Your task to perform on an android device: turn off priority inbox in the gmail app Image 0: 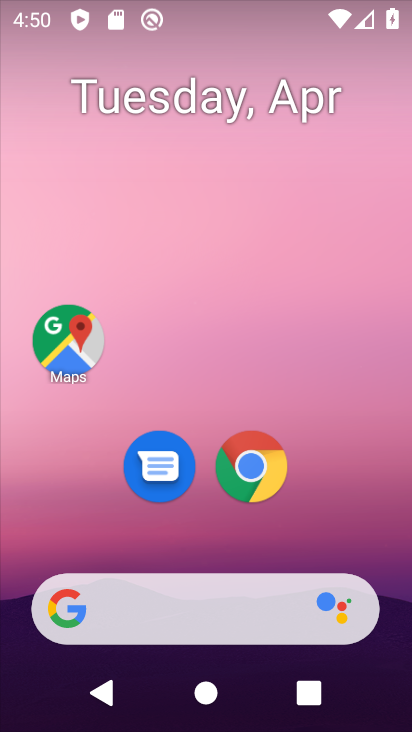
Step 0: drag from (207, 428) to (289, 15)
Your task to perform on an android device: turn off priority inbox in the gmail app Image 1: 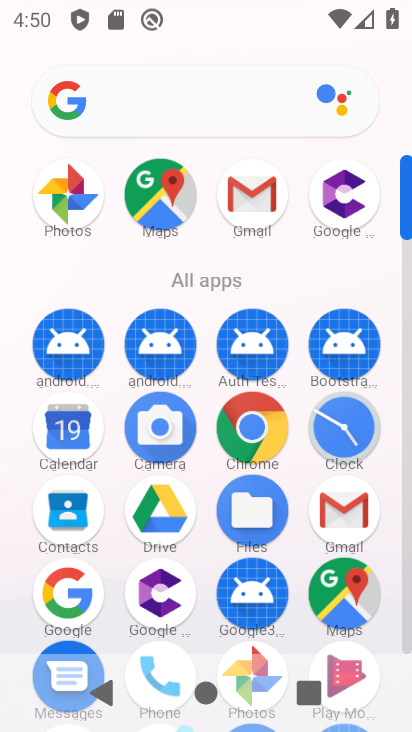
Step 1: click (363, 505)
Your task to perform on an android device: turn off priority inbox in the gmail app Image 2: 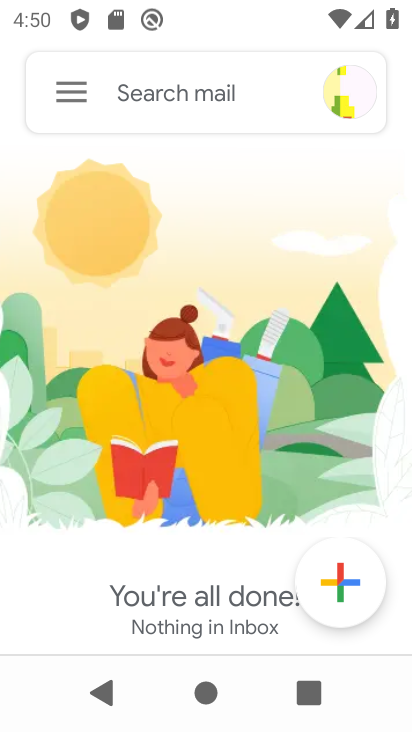
Step 2: click (78, 91)
Your task to perform on an android device: turn off priority inbox in the gmail app Image 3: 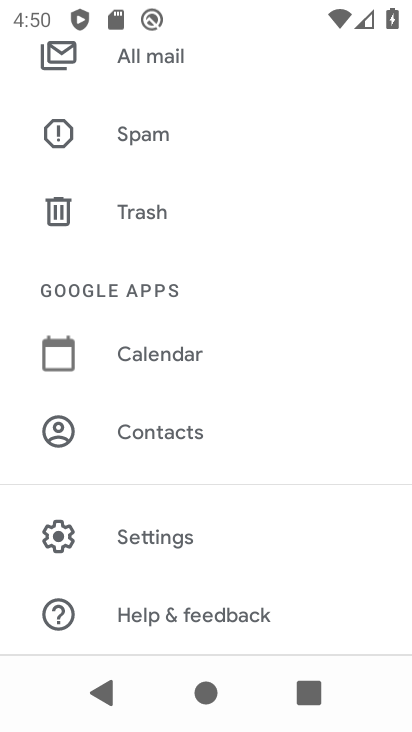
Step 3: click (186, 557)
Your task to perform on an android device: turn off priority inbox in the gmail app Image 4: 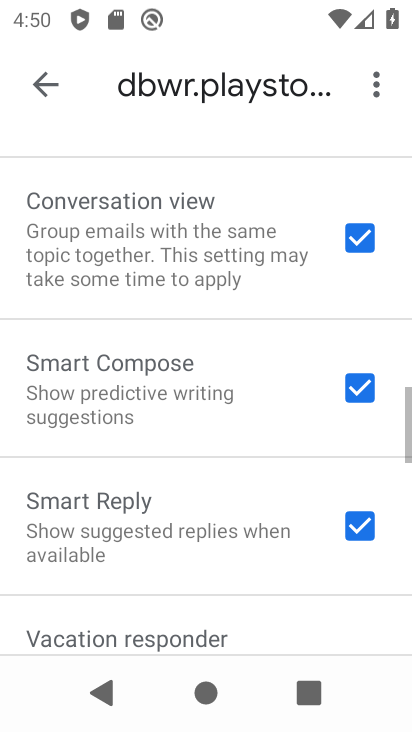
Step 4: drag from (186, 557) to (257, 68)
Your task to perform on an android device: turn off priority inbox in the gmail app Image 5: 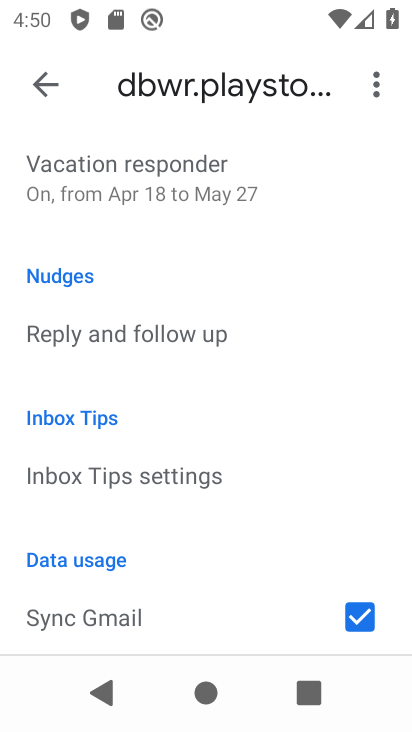
Step 5: drag from (87, 518) to (159, 86)
Your task to perform on an android device: turn off priority inbox in the gmail app Image 6: 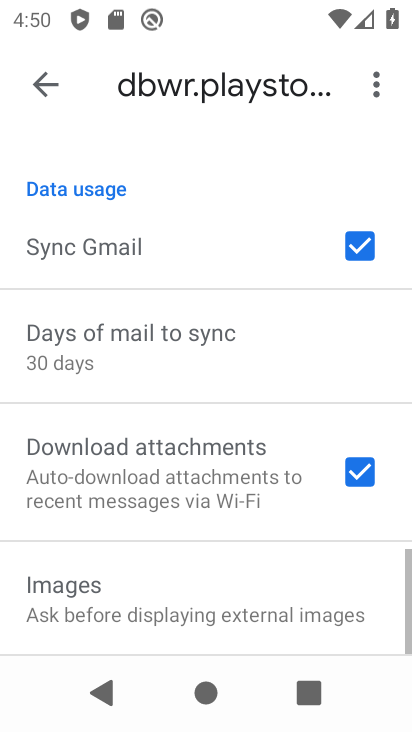
Step 6: drag from (130, 536) to (184, 155)
Your task to perform on an android device: turn off priority inbox in the gmail app Image 7: 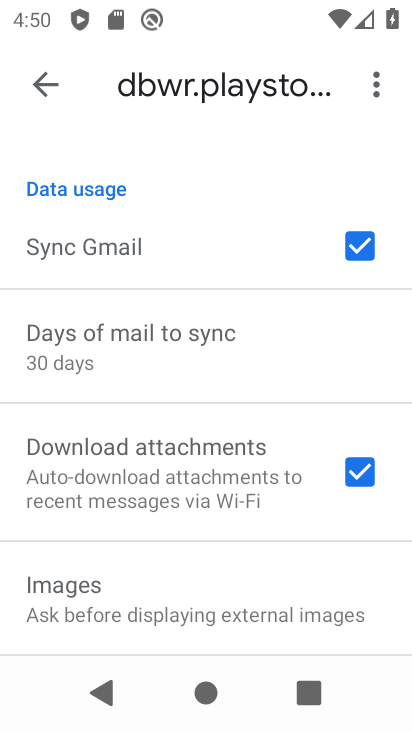
Step 7: drag from (218, 234) to (275, 678)
Your task to perform on an android device: turn off priority inbox in the gmail app Image 8: 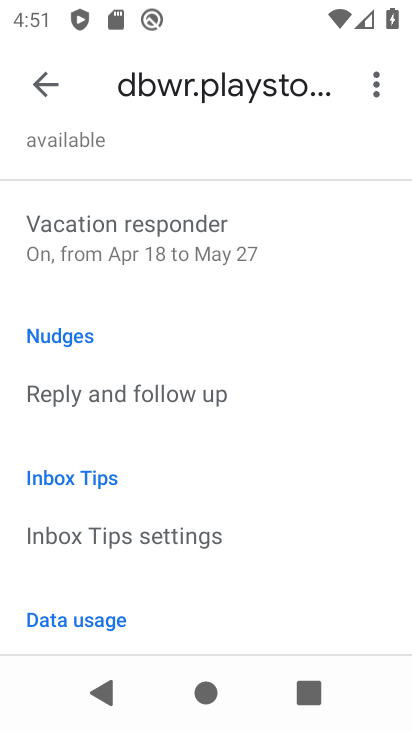
Step 8: drag from (114, 617) to (212, 156)
Your task to perform on an android device: turn off priority inbox in the gmail app Image 9: 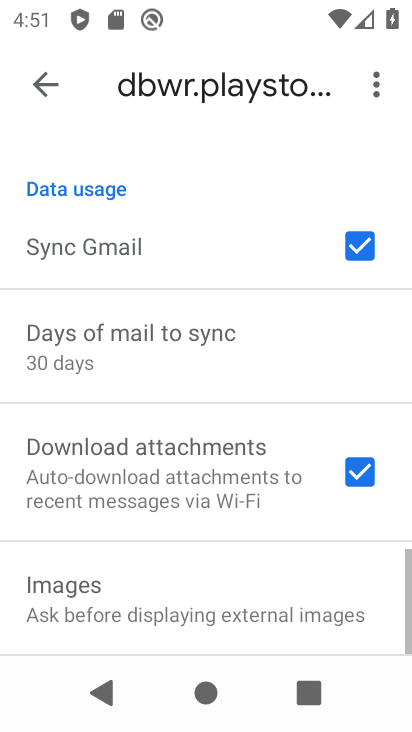
Step 9: drag from (86, 575) to (132, 184)
Your task to perform on an android device: turn off priority inbox in the gmail app Image 10: 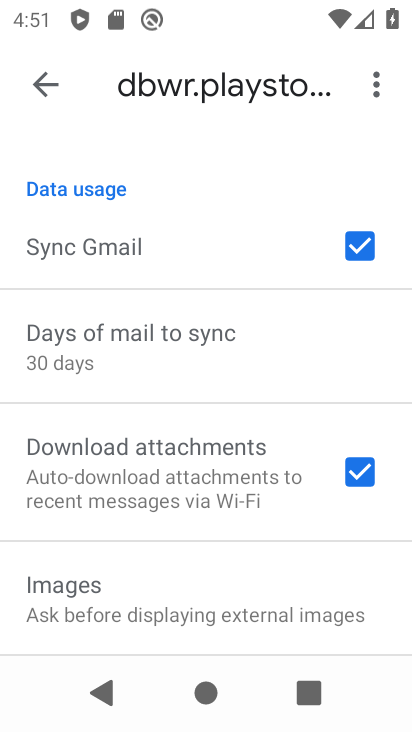
Step 10: drag from (157, 246) to (133, 565)
Your task to perform on an android device: turn off priority inbox in the gmail app Image 11: 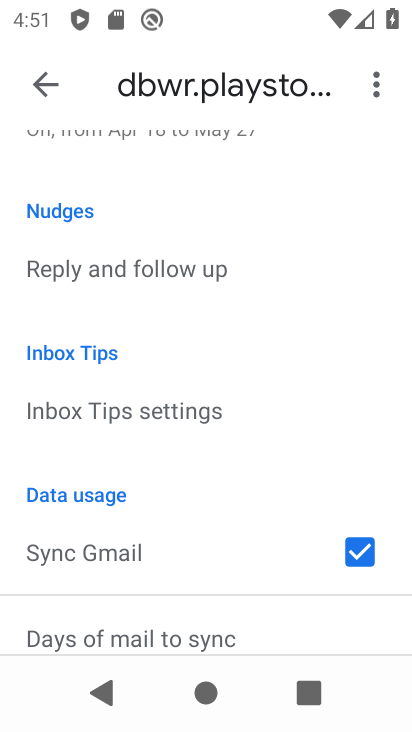
Step 11: drag from (182, 257) to (148, 624)
Your task to perform on an android device: turn off priority inbox in the gmail app Image 12: 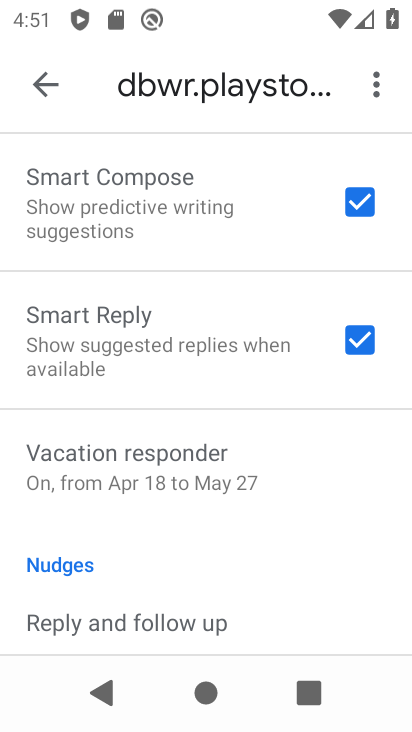
Step 12: drag from (192, 158) to (153, 584)
Your task to perform on an android device: turn off priority inbox in the gmail app Image 13: 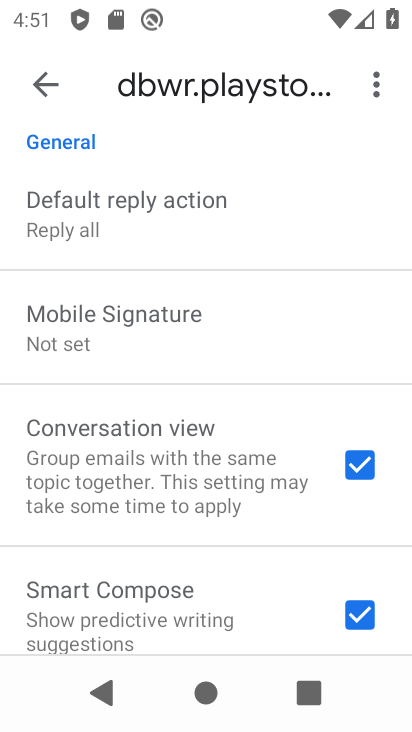
Step 13: drag from (145, 240) to (137, 594)
Your task to perform on an android device: turn off priority inbox in the gmail app Image 14: 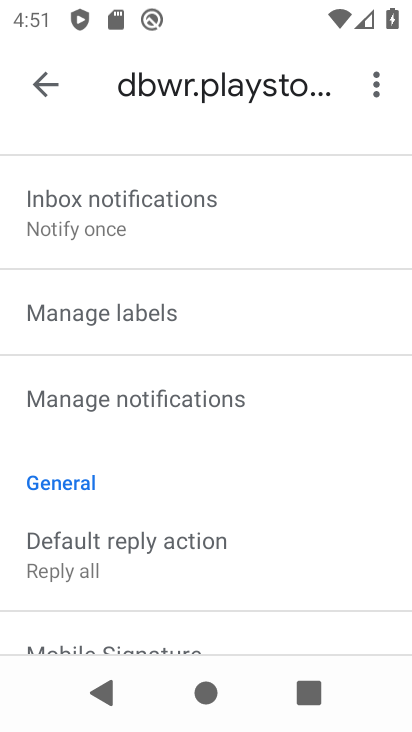
Step 14: drag from (147, 262) to (142, 630)
Your task to perform on an android device: turn off priority inbox in the gmail app Image 15: 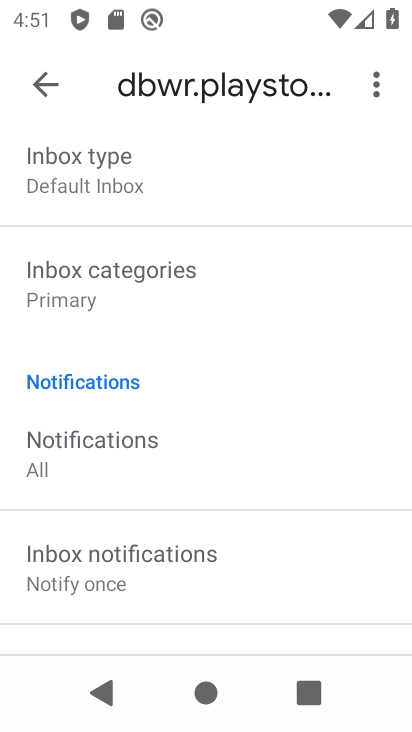
Step 15: click (98, 275)
Your task to perform on an android device: turn off priority inbox in the gmail app Image 16: 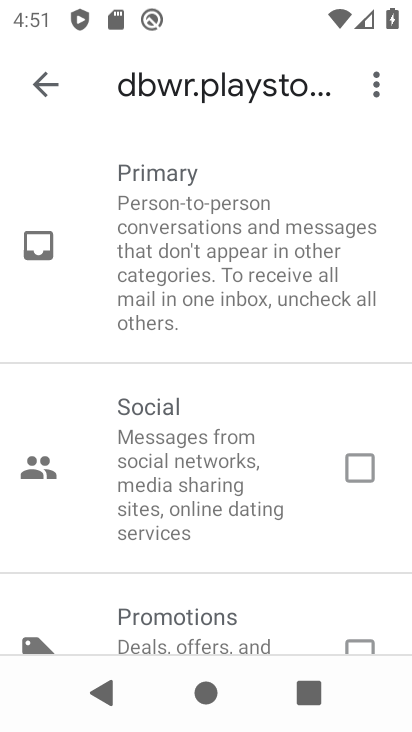
Step 16: click (32, 104)
Your task to perform on an android device: turn off priority inbox in the gmail app Image 17: 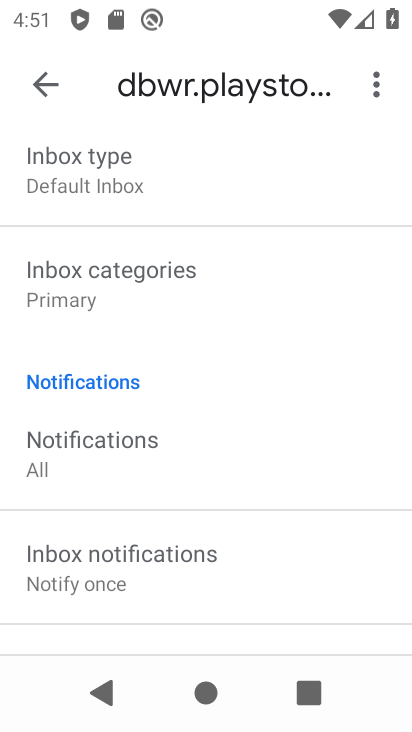
Step 17: drag from (195, 196) to (212, 571)
Your task to perform on an android device: turn off priority inbox in the gmail app Image 18: 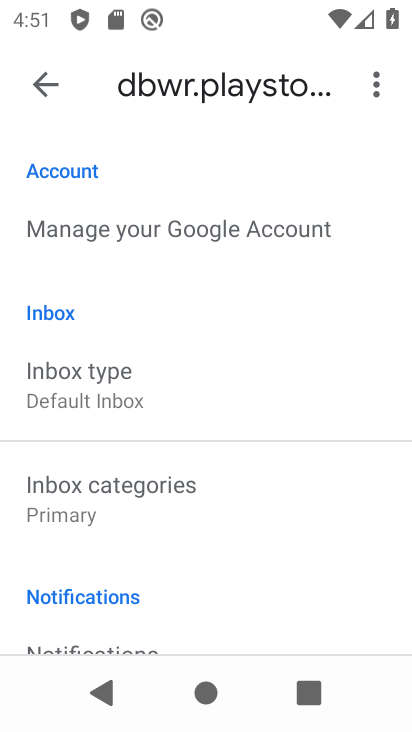
Step 18: click (101, 393)
Your task to perform on an android device: turn off priority inbox in the gmail app Image 19: 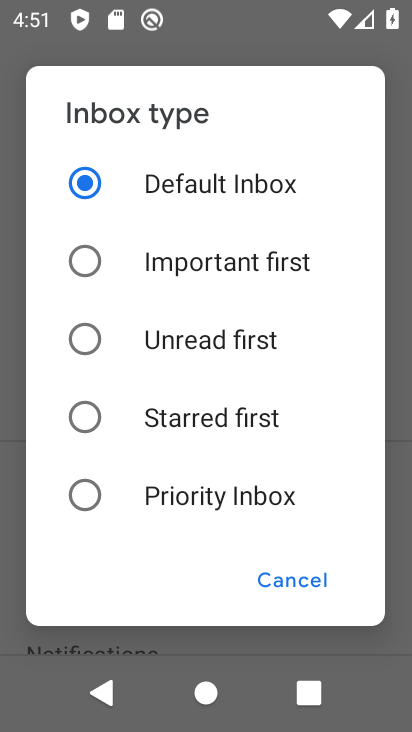
Step 19: task complete